Your task to perform on an android device: visit the assistant section in the google photos Image 0: 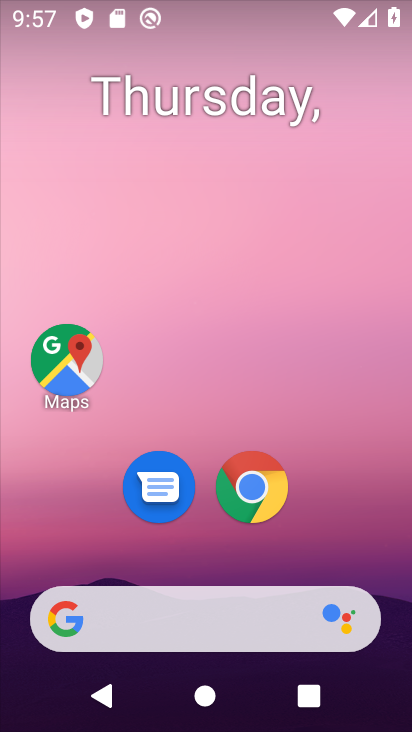
Step 0: drag from (377, 574) to (233, 153)
Your task to perform on an android device: visit the assistant section in the google photos Image 1: 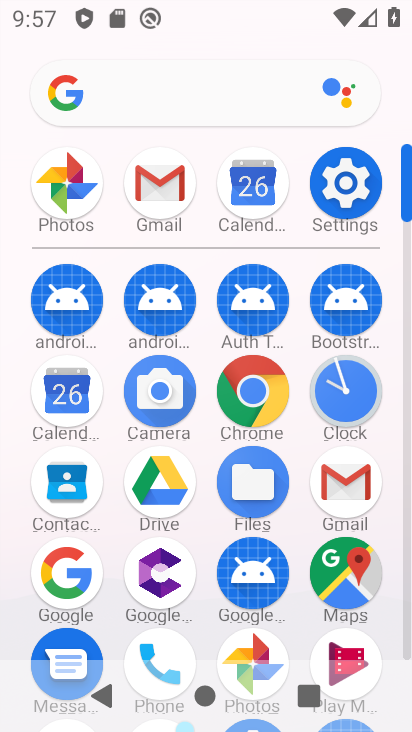
Step 1: click (56, 190)
Your task to perform on an android device: visit the assistant section in the google photos Image 2: 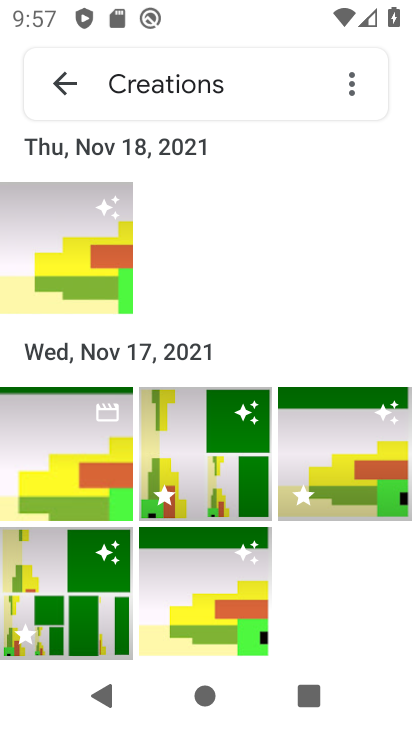
Step 2: click (63, 79)
Your task to perform on an android device: visit the assistant section in the google photos Image 3: 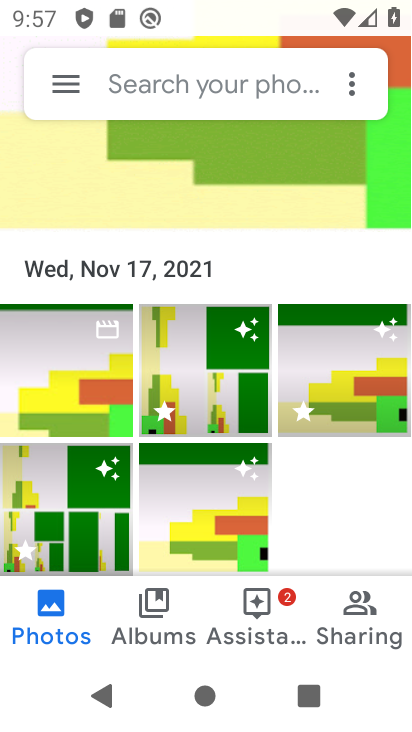
Step 3: click (260, 604)
Your task to perform on an android device: visit the assistant section in the google photos Image 4: 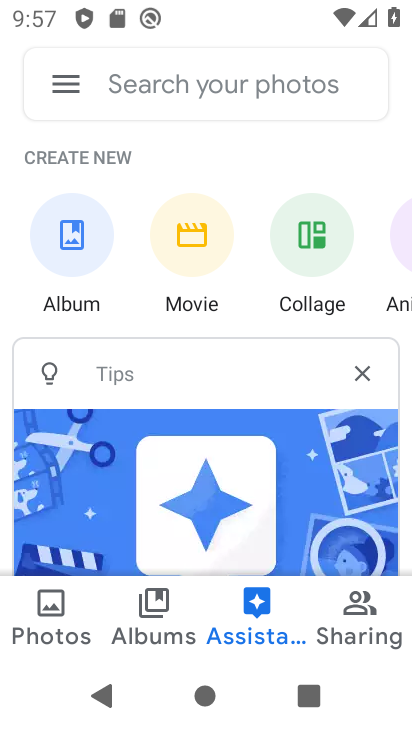
Step 4: task complete